Your task to perform on an android device: Open sound settings Image 0: 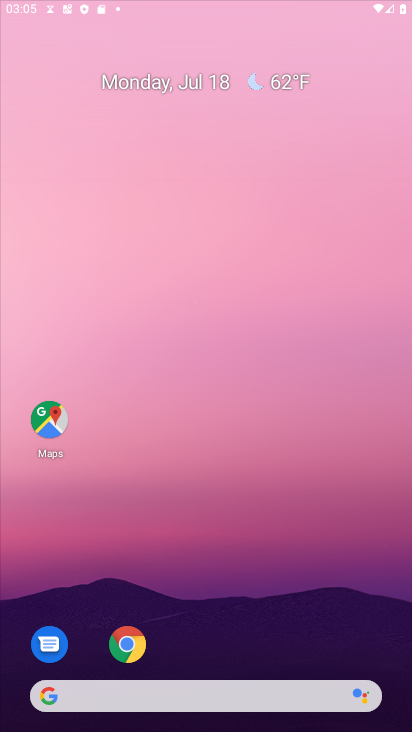
Step 0: click (190, 184)
Your task to perform on an android device: Open sound settings Image 1: 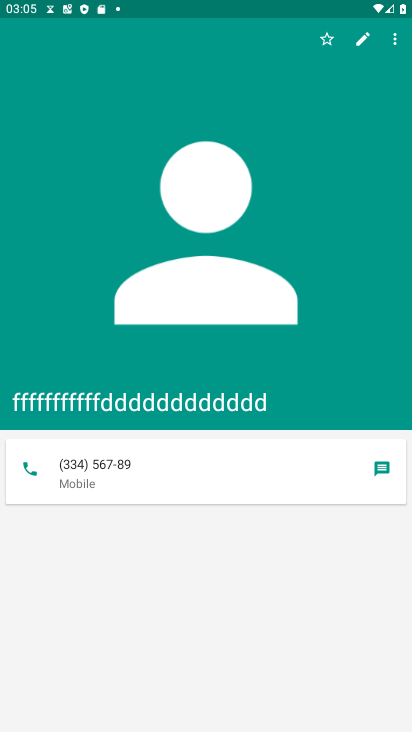
Step 1: press back button
Your task to perform on an android device: Open sound settings Image 2: 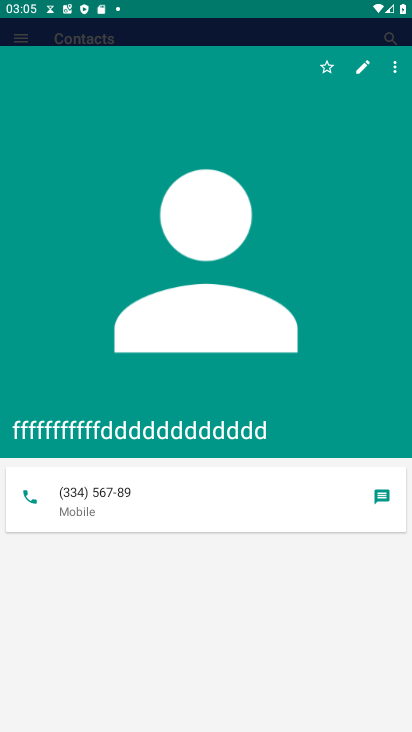
Step 2: press back button
Your task to perform on an android device: Open sound settings Image 3: 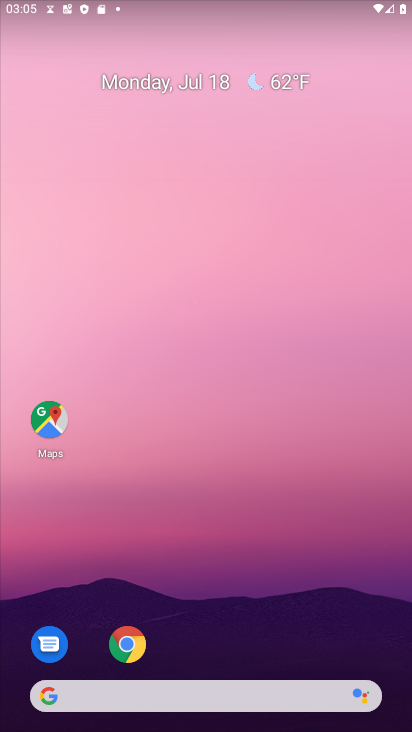
Step 3: drag from (283, 633) to (209, 166)
Your task to perform on an android device: Open sound settings Image 4: 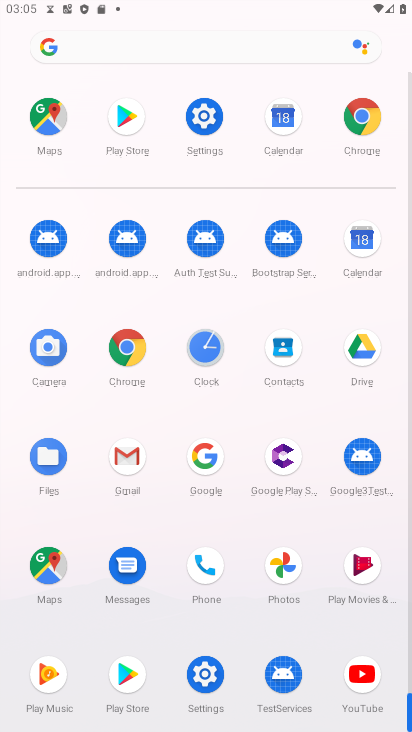
Step 4: click (213, 114)
Your task to perform on an android device: Open sound settings Image 5: 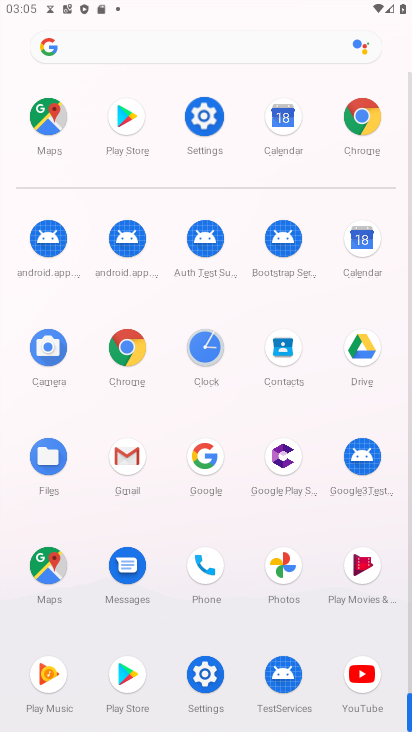
Step 5: click (211, 115)
Your task to perform on an android device: Open sound settings Image 6: 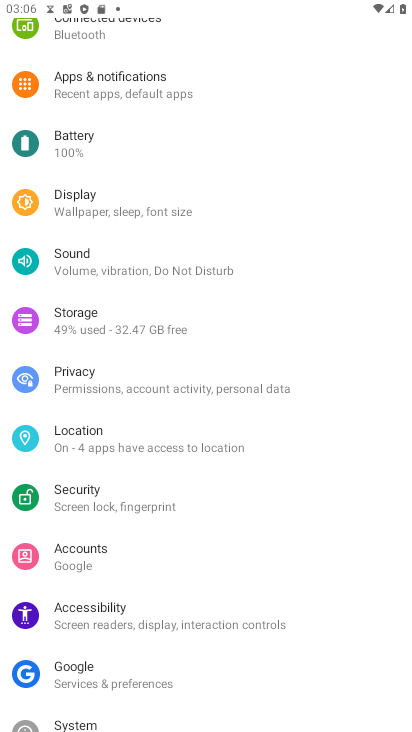
Step 6: click (101, 268)
Your task to perform on an android device: Open sound settings Image 7: 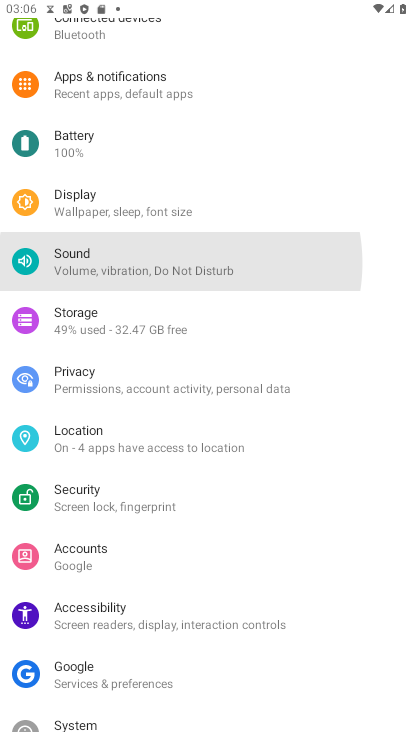
Step 7: click (100, 268)
Your task to perform on an android device: Open sound settings Image 8: 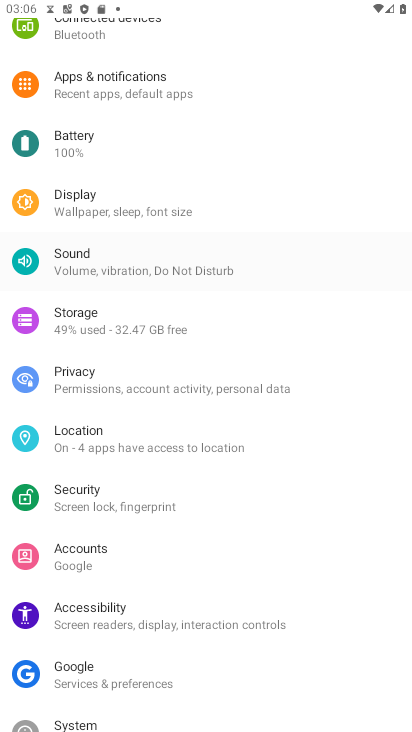
Step 8: click (98, 270)
Your task to perform on an android device: Open sound settings Image 9: 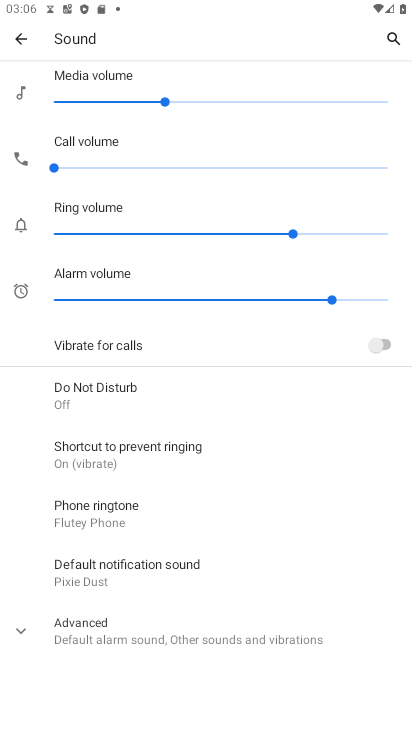
Step 9: task complete